Your task to perform on an android device: Show me popular games on the Play Store Image 0: 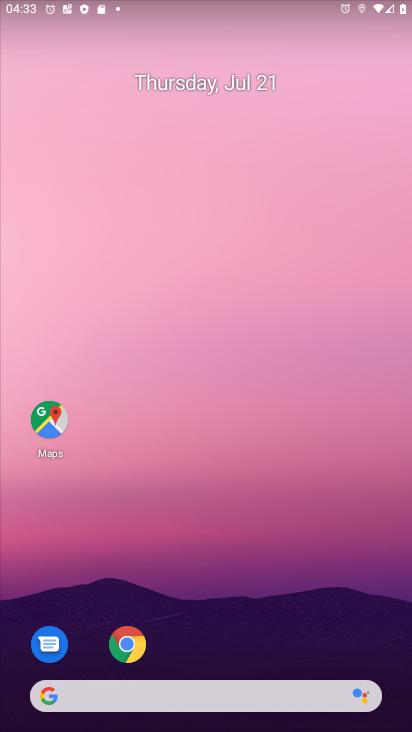
Step 0: drag from (312, 662) to (353, 4)
Your task to perform on an android device: Show me popular games on the Play Store Image 1: 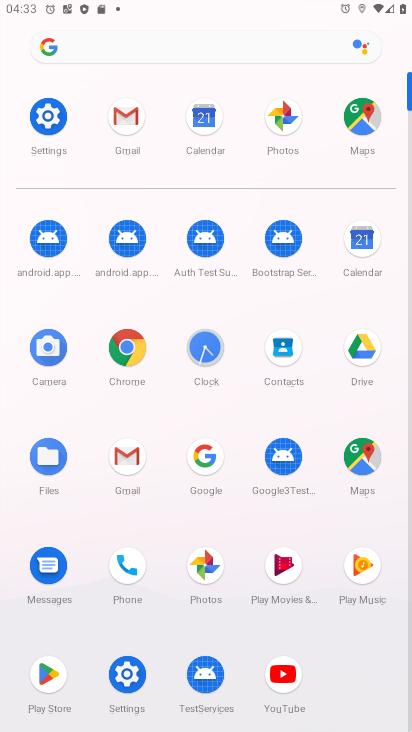
Step 1: click (48, 676)
Your task to perform on an android device: Show me popular games on the Play Store Image 2: 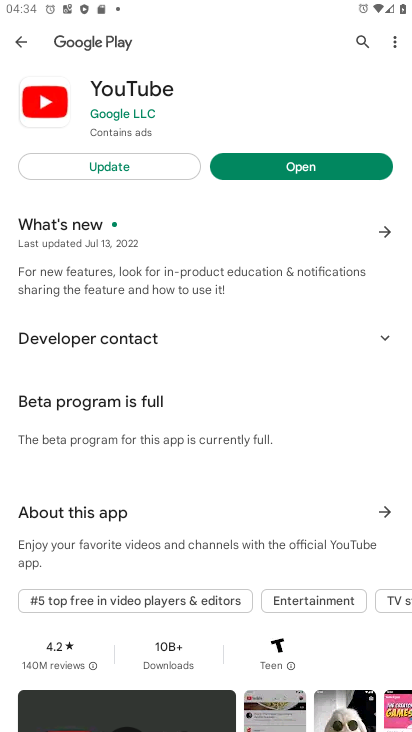
Step 2: click (21, 44)
Your task to perform on an android device: Show me popular games on the Play Store Image 3: 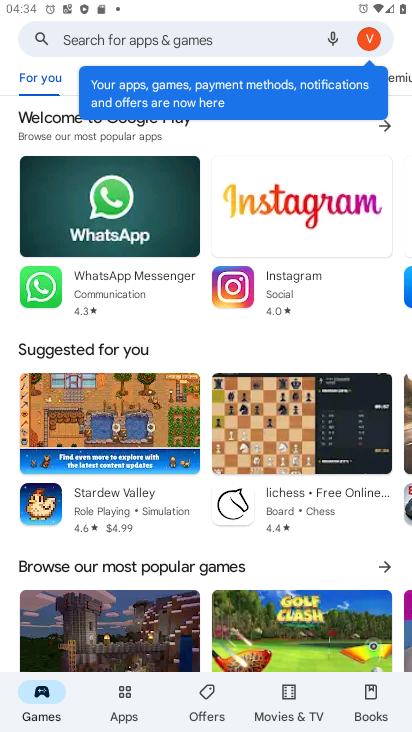
Step 3: click (216, 569)
Your task to perform on an android device: Show me popular games on the Play Store Image 4: 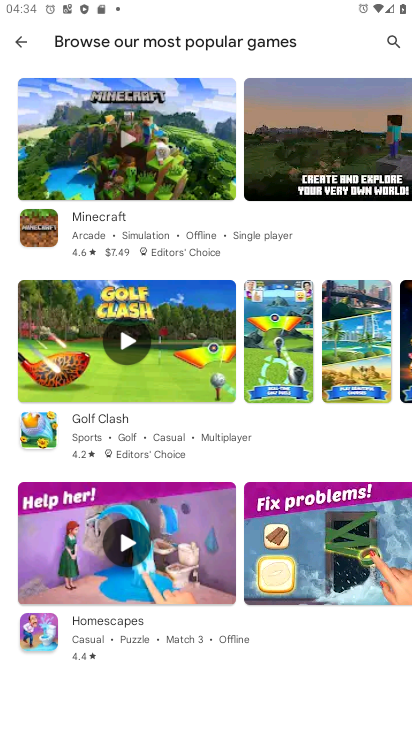
Step 4: task complete